Your task to perform on an android device: set the timer Image 0: 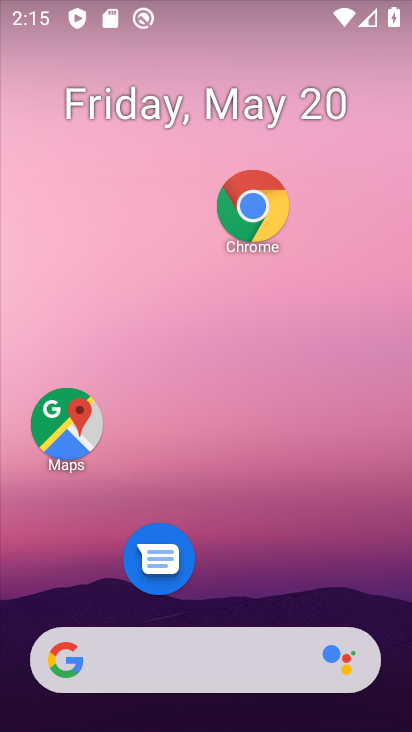
Step 0: drag from (231, 616) to (178, 41)
Your task to perform on an android device: set the timer Image 1: 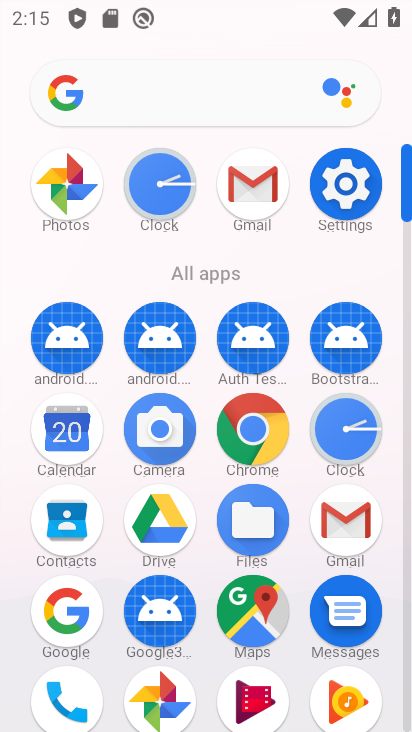
Step 1: click (346, 448)
Your task to perform on an android device: set the timer Image 2: 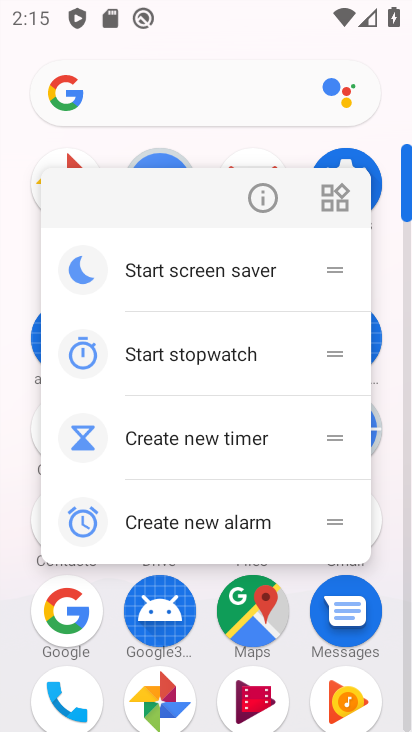
Step 2: click (391, 437)
Your task to perform on an android device: set the timer Image 3: 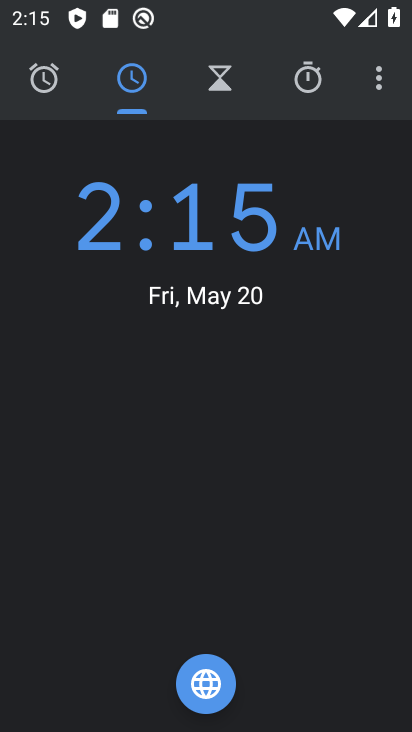
Step 3: click (358, 434)
Your task to perform on an android device: set the timer Image 4: 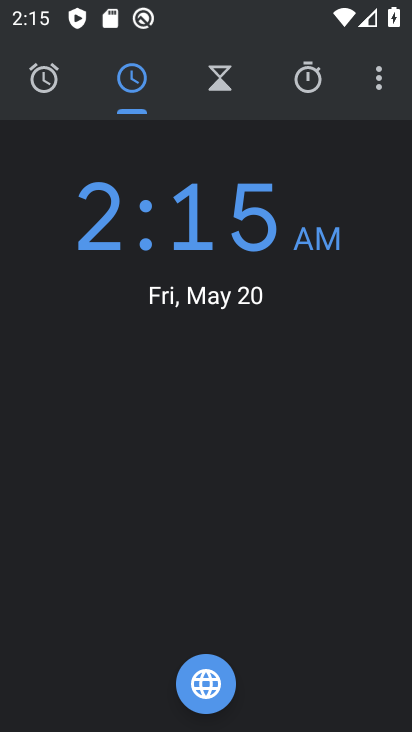
Step 4: click (221, 101)
Your task to perform on an android device: set the timer Image 5: 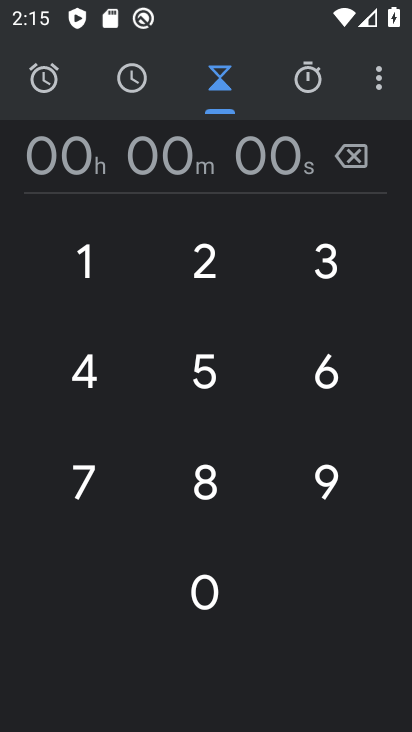
Step 5: click (206, 254)
Your task to perform on an android device: set the timer Image 6: 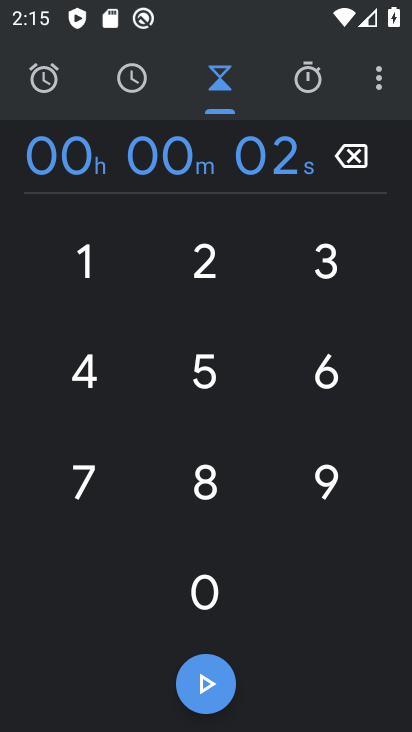
Step 6: click (201, 305)
Your task to perform on an android device: set the timer Image 7: 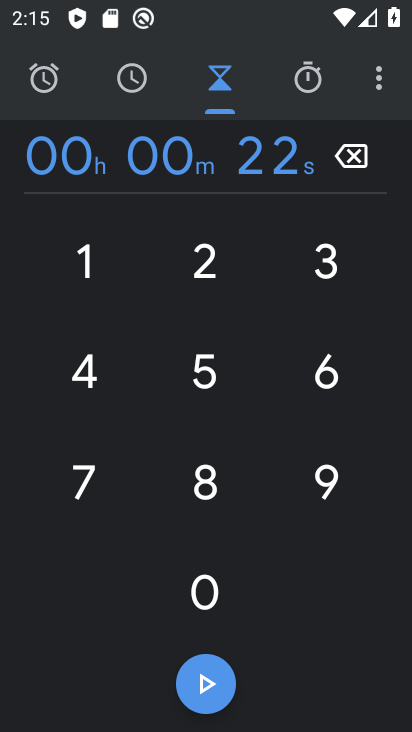
Step 7: click (193, 682)
Your task to perform on an android device: set the timer Image 8: 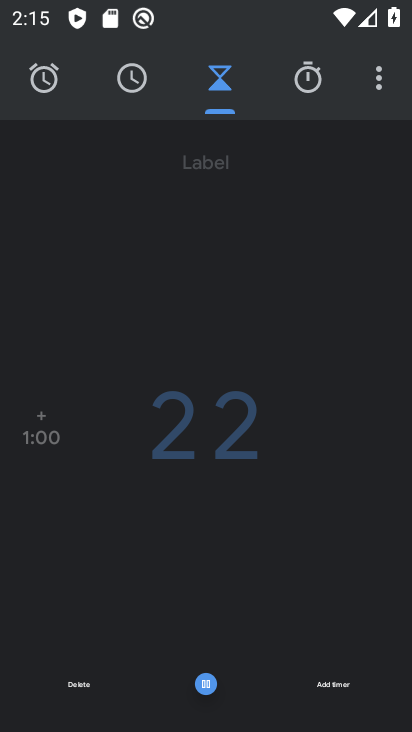
Step 8: task complete